Your task to perform on an android device: What's the weather going to be tomorrow? Image 0: 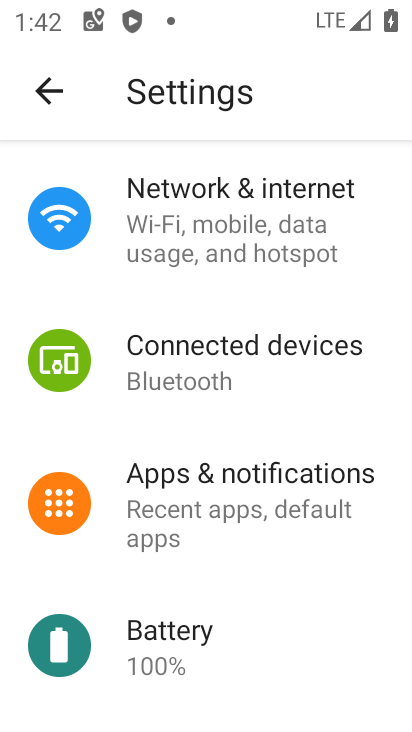
Step 0: drag from (227, 608) to (333, 217)
Your task to perform on an android device: What's the weather going to be tomorrow? Image 1: 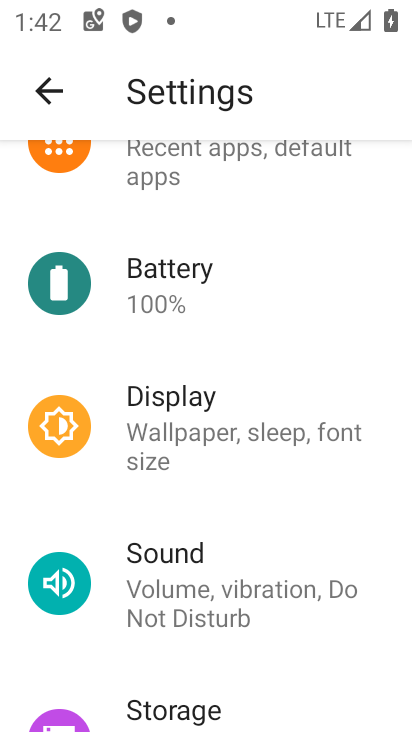
Step 1: drag from (244, 560) to (322, 37)
Your task to perform on an android device: What's the weather going to be tomorrow? Image 2: 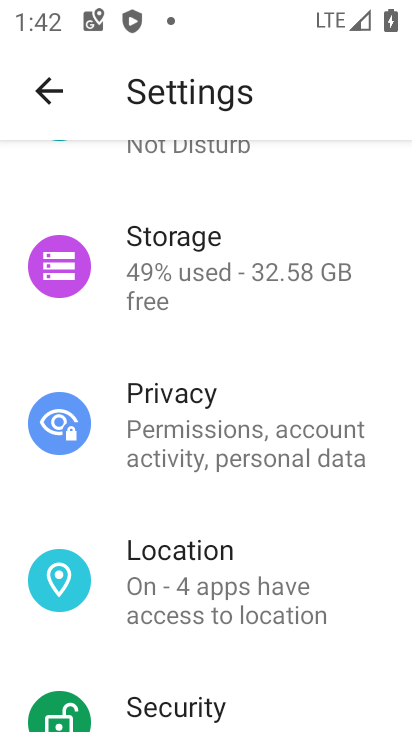
Step 2: drag from (218, 636) to (289, 286)
Your task to perform on an android device: What's the weather going to be tomorrow? Image 3: 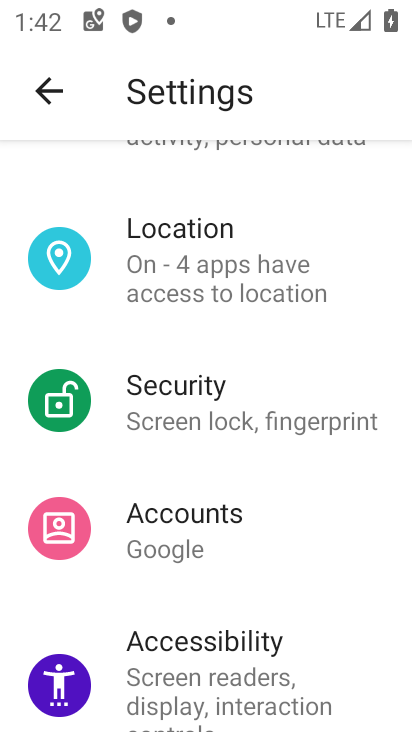
Step 3: drag from (193, 626) to (311, 268)
Your task to perform on an android device: What's the weather going to be tomorrow? Image 4: 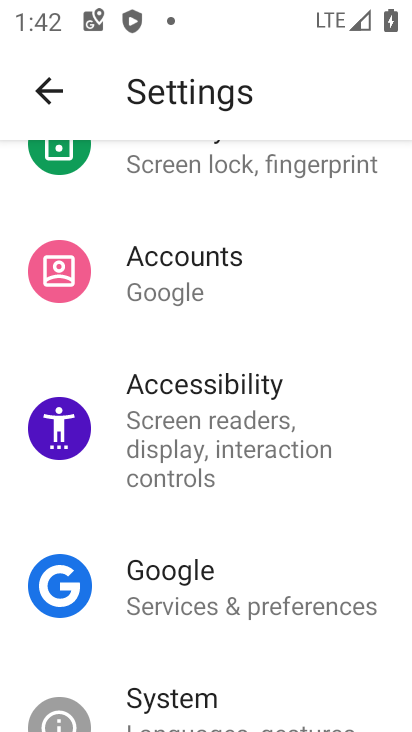
Step 4: drag from (244, 297) to (274, 730)
Your task to perform on an android device: What's the weather going to be tomorrow? Image 5: 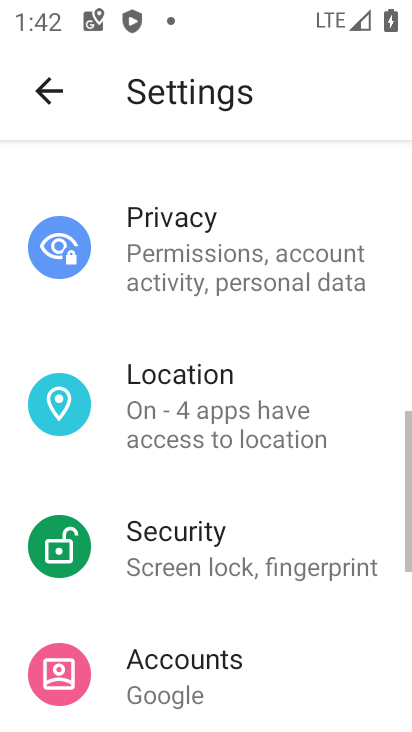
Step 5: drag from (246, 657) to (297, 318)
Your task to perform on an android device: What's the weather going to be tomorrow? Image 6: 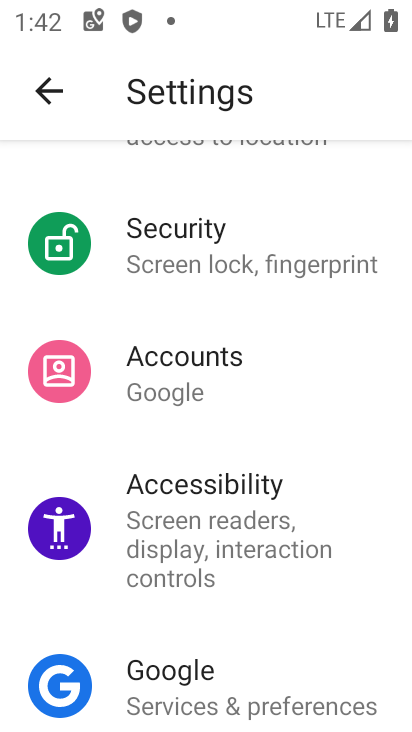
Step 6: drag from (210, 686) to (305, 731)
Your task to perform on an android device: What's the weather going to be tomorrow? Image 7: 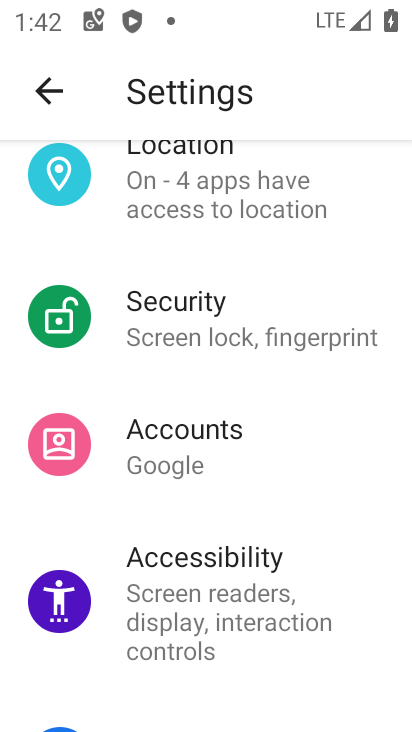
Step 7: click (52, 100)
Your task to perform on an android device: What's the weather going to be tomorrow? Image 8: 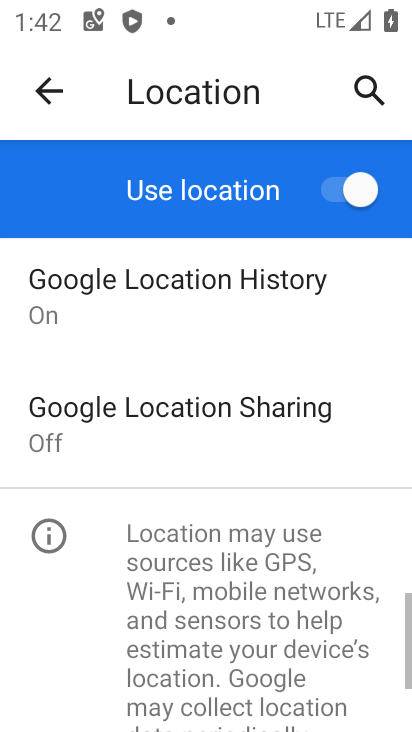
Step 8: click (47, 101)
Your task to perform on an android device: What's the weather going to be tomorrow? Image 9: 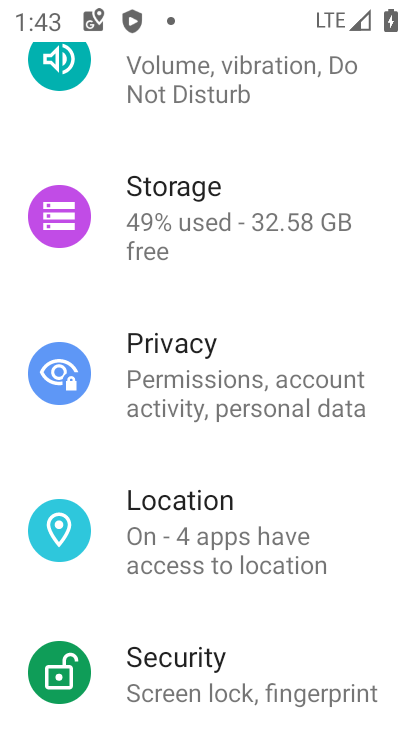
Step 9: drag from (203, 605) to (298, 145)
Your task to perform on an android device: What's the weather going to be tomorrow? Image 10: 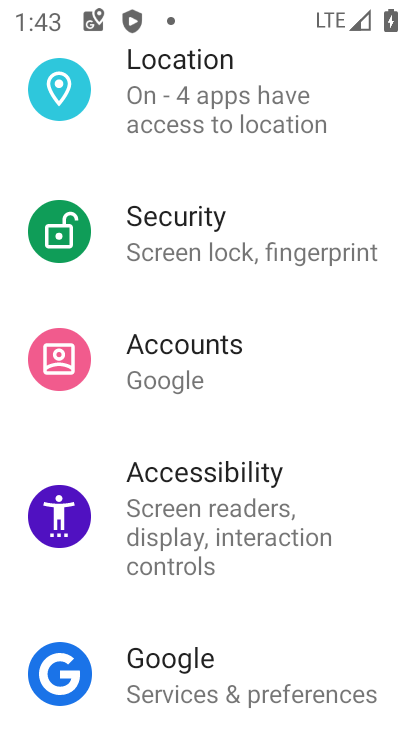
Step 10: drag from (276, 340) to (378, 718)
Your task to perform on an android device: What's the weather going to be tomorrow? Image 11: 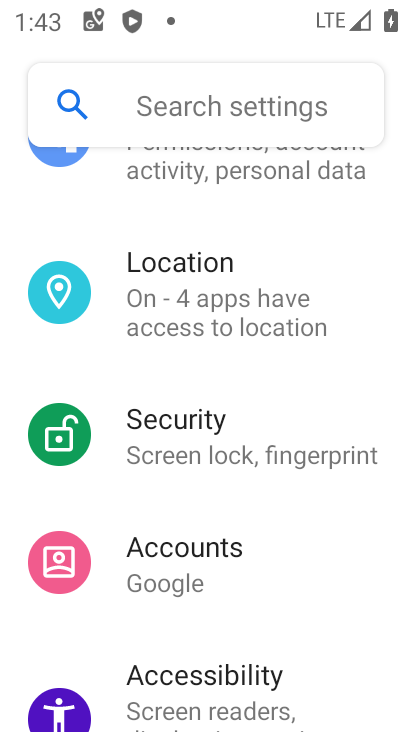
Step 11: drag from (265, 206) to (397, 152)
Your task to perform on an android device: What's the weather going to be tomorrow? Image 12: 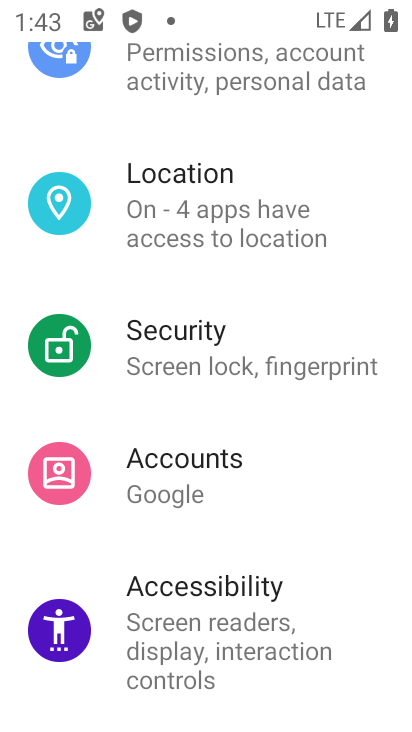
Step 12: click (191, 113)
Your task to perform on an android device: What's the weather going to be tomorrow? Image 13: 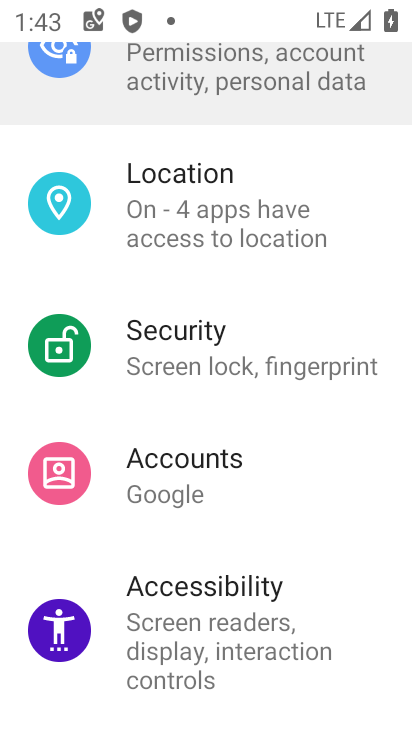
Step 13: drag from (191, 113) to (268, 617)
Your task to perform on an android device: What's the weather going to be tomorrow? Image 14: 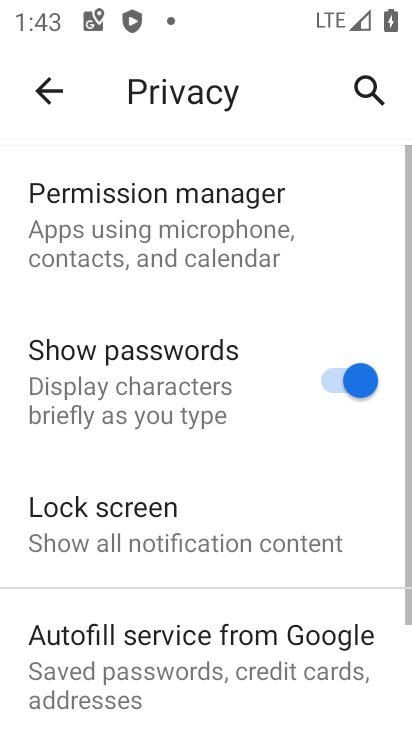
Step 14: drag from (241, 124) to (292, 724)
Your task to perform on an android device: What's the weather going to be tomorrow? Image 15: 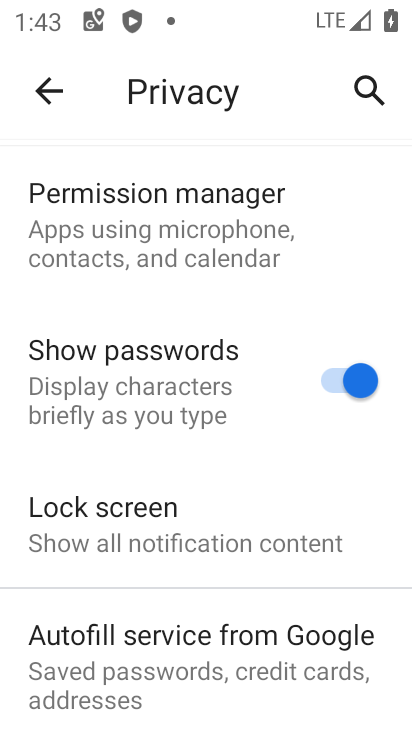
Step 15: press home button
Your task to perform on an android device: What's the weather going to be tomorrow? Image 16: 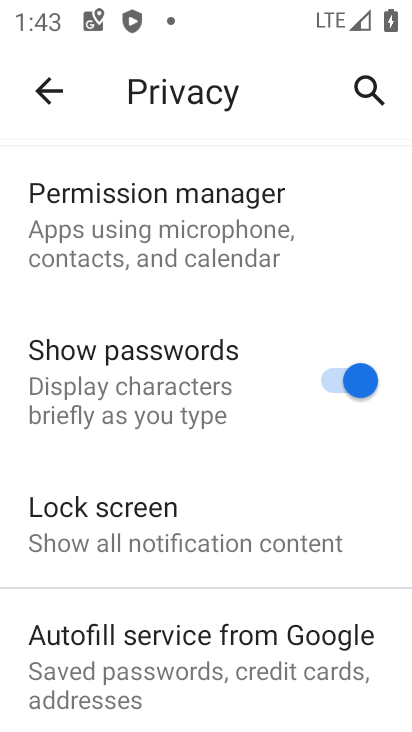
Step 16: press home button
Your task to perform on an android device: What's the weather going to be tomorrow? Image 17: 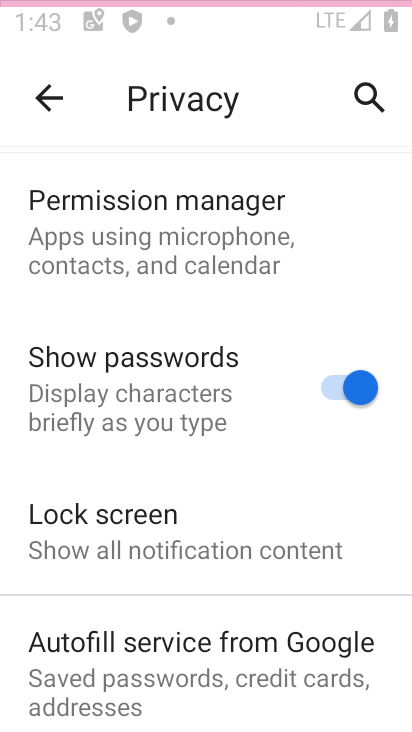
Step 17: click (405, 478)
Your task to perform on an android device: What's the weather going to be tomorrow? Image 18: 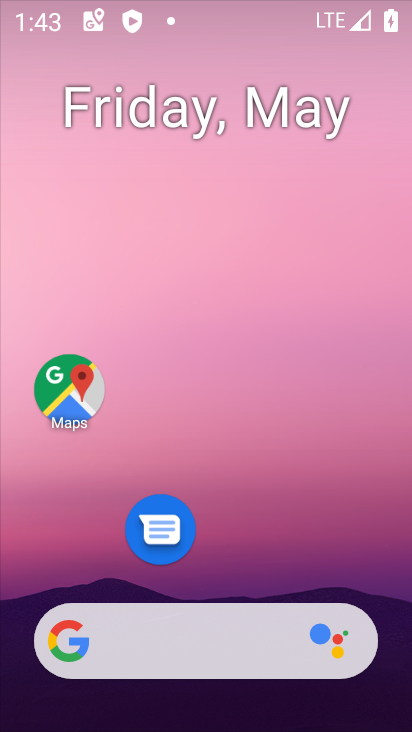
Step 18: drag from (197, 259) to (311, 729)
Your task to perform on an android device: What's the weather going to be tomorrow? Image 19: 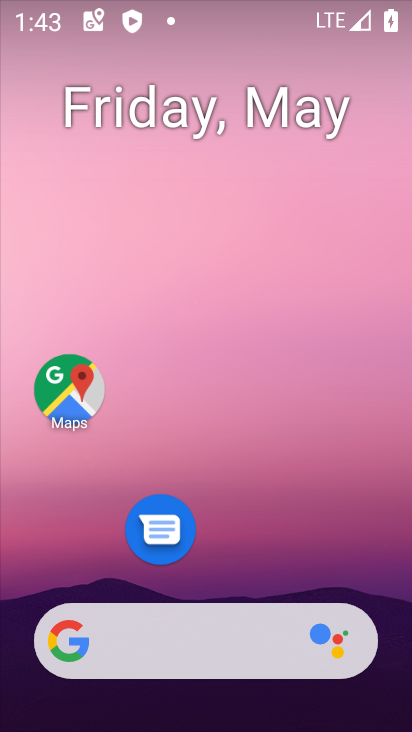
Step 19: drag from (236, 571) to (280, 6)
Your task to perform on an android device: What's the weather going to be tomorrow? Image 20: 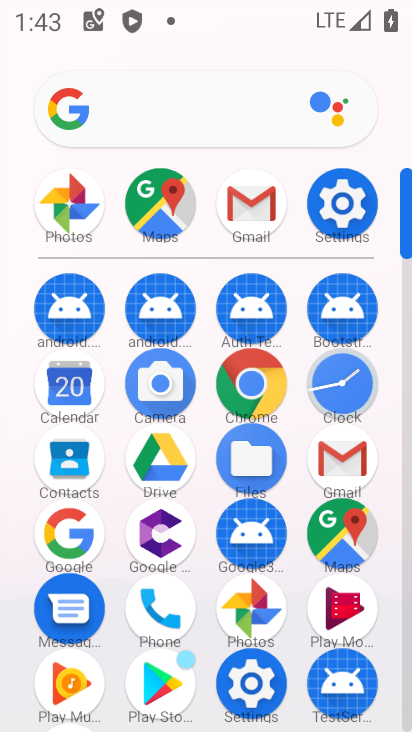
Step 20: click (203, 104)
Your task to perform on an android device: What's the weather going to be tomorrow? Image 21: 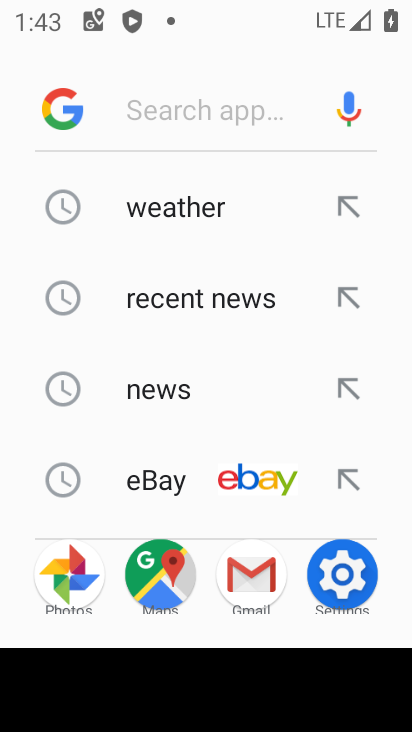
Step 21: type "weather going to be tomorrow"
Your task to perform on an android device: What's the weather going to be tomorrow? Image 22: 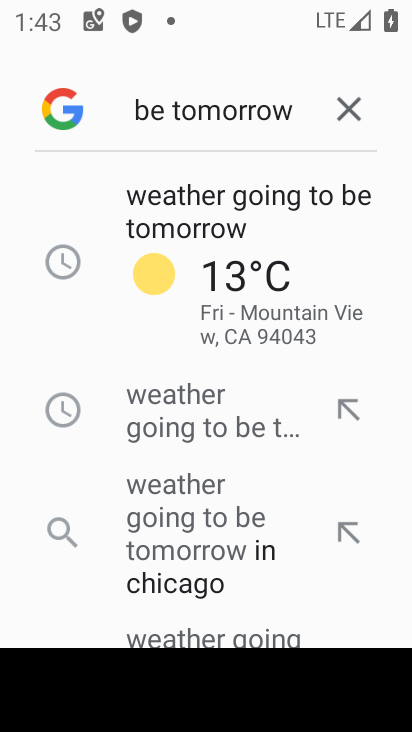
Step 22: click (190, 225)
Your task to perform on an android device: What's the weather going to be tomorrow? Image 23: 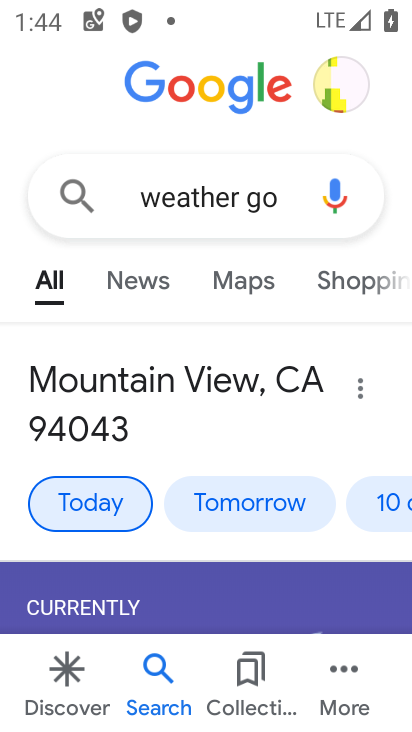
Step 23: task complete